Your task to perform on an android device: toggle pop-ups in chrome Image 0: 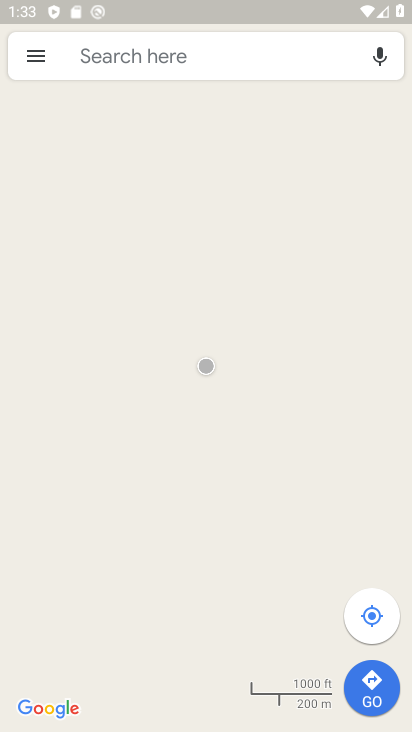
Step 0: press home button
Your task to perform on an android device: toggle pop-ups in chrome Image 1: 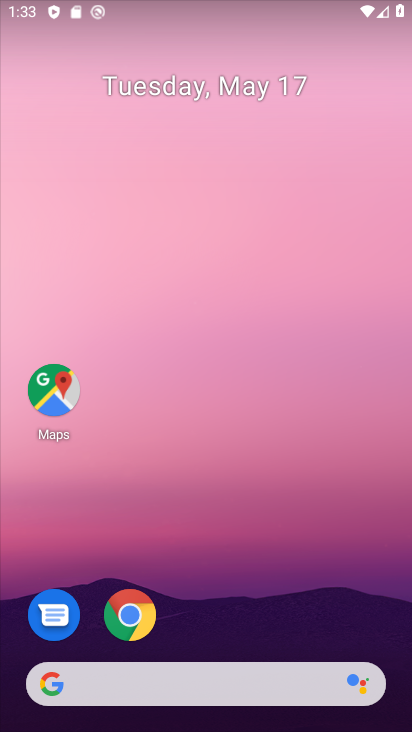
Step 1: click (134, 612)
Your task to perform on an android device: toggle pop-ups in chrome Image 2: 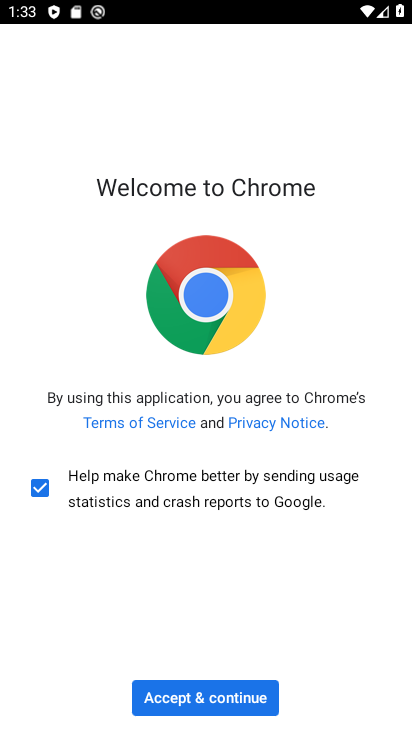
Step 2: click (188, 701)
Your task to perform on an android device: toggle pop-ups in chrome Image 3: 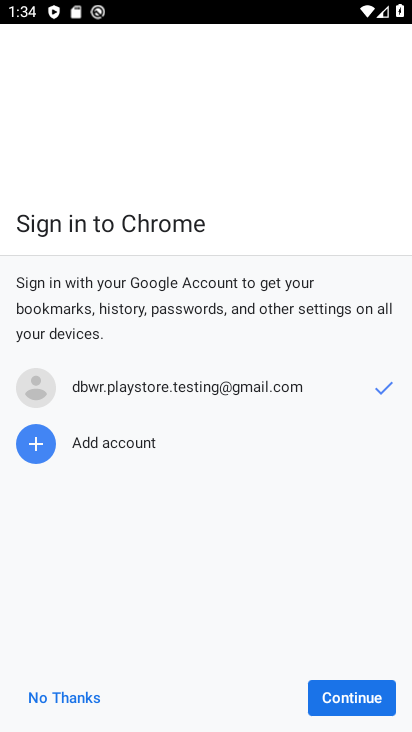
Step 3: click (346, 682)
Your task to perform on an android device: toggle pop-ups in chrome Image 4: 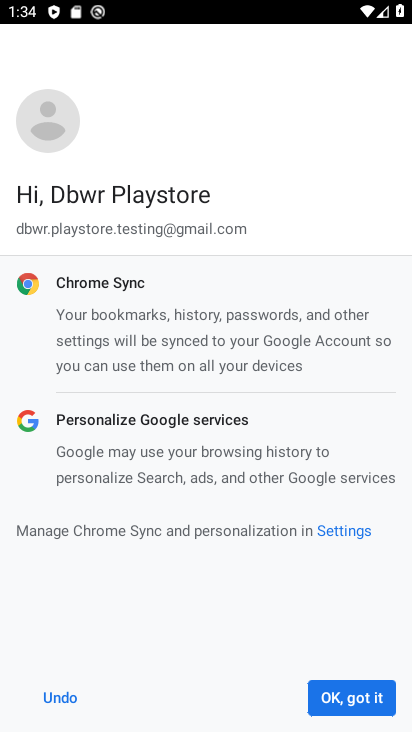
Step 4: click (345, 715)
Your task to perform on an android device: toggle pop-ups in chrome Image 5: 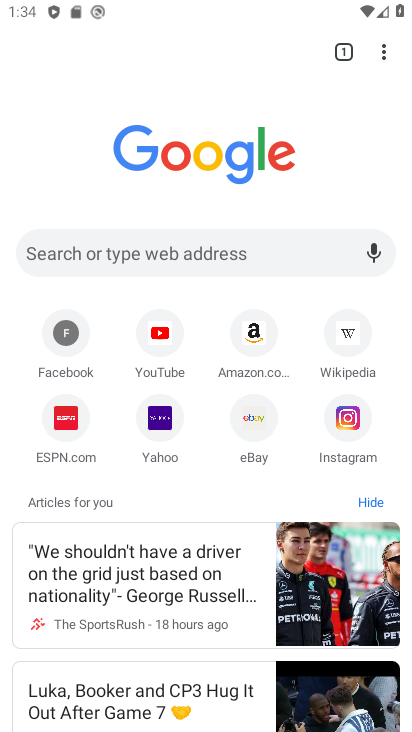
Step 5: click (384, 51)
Your task to perform on an android device: toggle pop-ups in chrome Image 6: 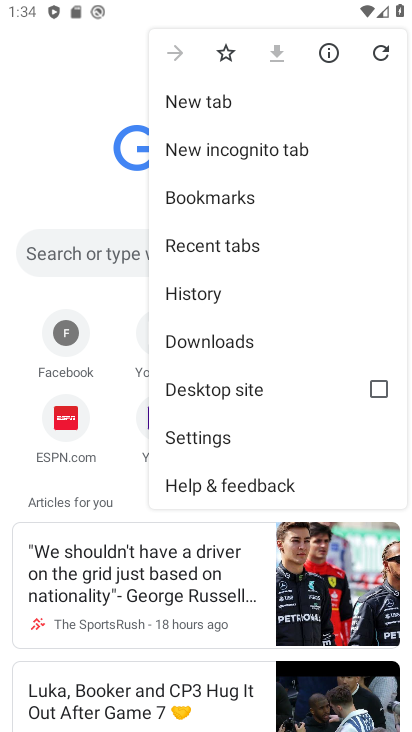
Step 6: click (214, 437)
Your task to perform on an android device: toggle pop-ups in chrome Image 7: 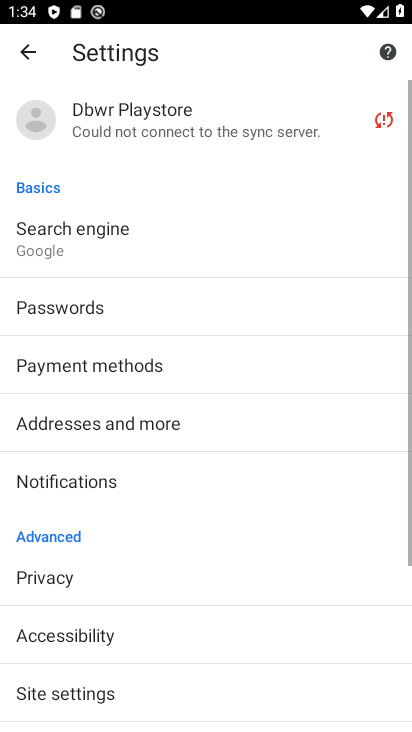
Step 7: drag from (204, 605) to (205, 190)
Your task to perform on an android device: toggle pop-ups in chrome Image 8: 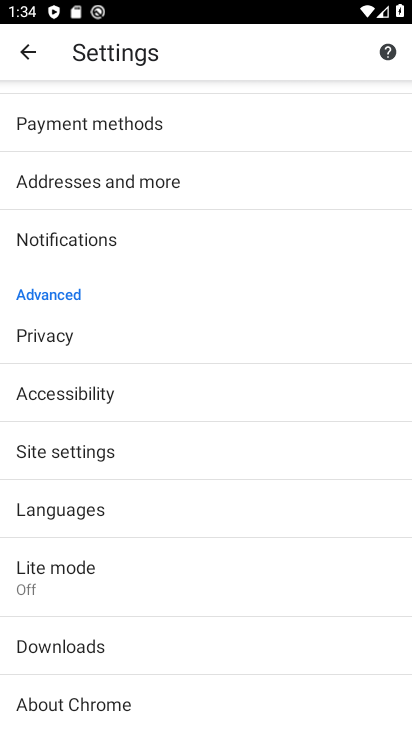
Step 8: click (104, 457)
Your task to perform on an android device: toggle pop-ups in chrome Image 9: 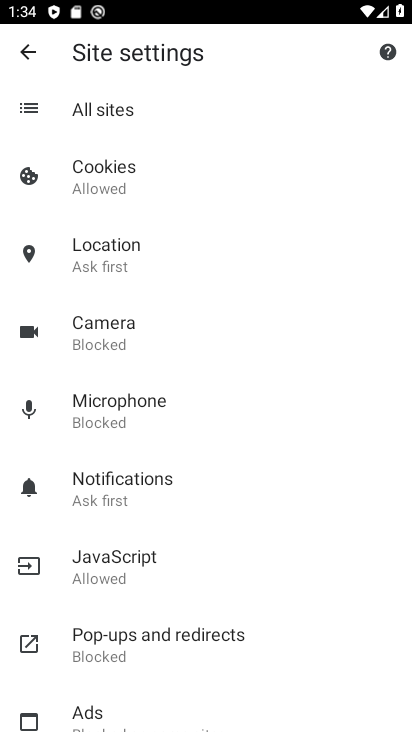
Step 9: click (149, 647)
Your task to perform on an android device: toggle pop-ups in chrome Image 10: 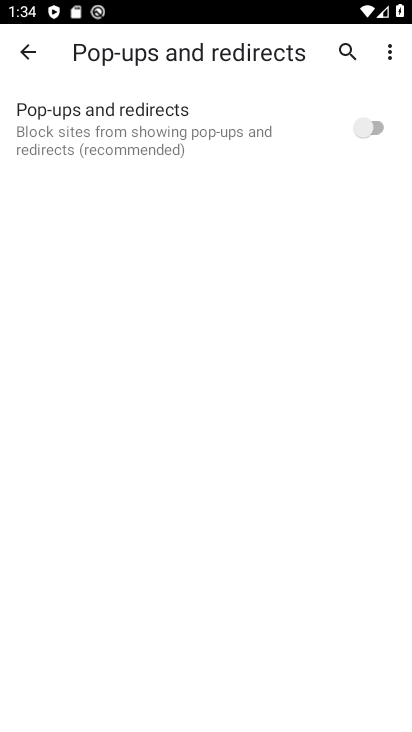
Step 10: click (357, 131)
Your task to perform on an android device: toggle pop-ups in chrome Image 11: 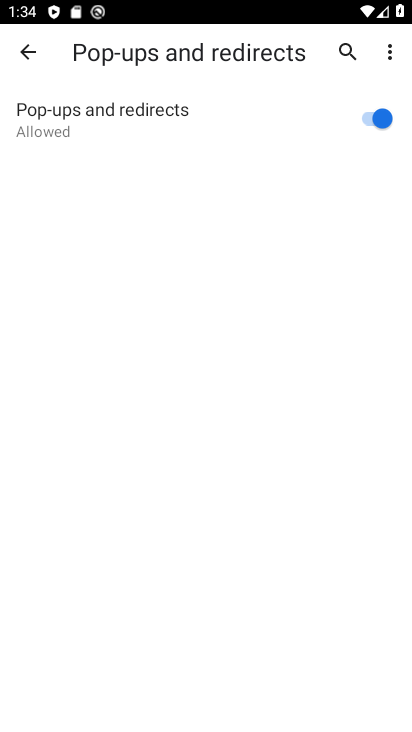
Step 11: task complete